Your task to perform on an android device: Open Google Maps and go to "Timeline" Image 0: 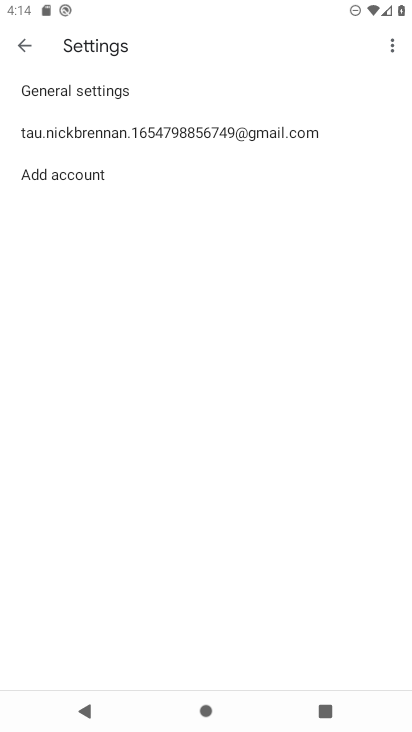
Step 0: press home button
Your task to perform on an android device: Open Google Maps and go to "Timeline" Image 1: 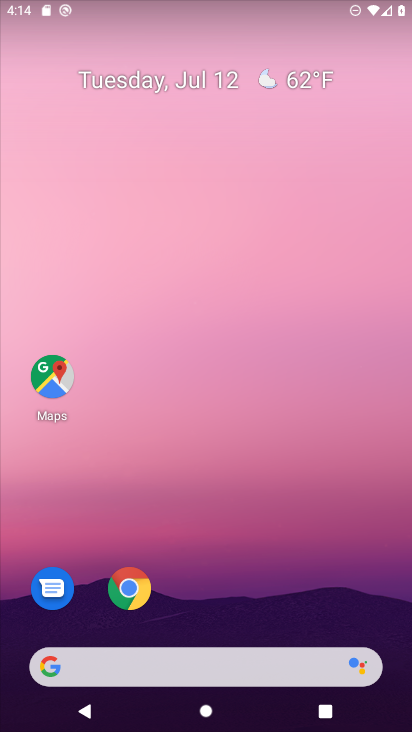
Step 1: drag from (233, 583) to (274, 49)
Your task to perform on an android device: Open Google Maps and go to "Timeline" Image 2: 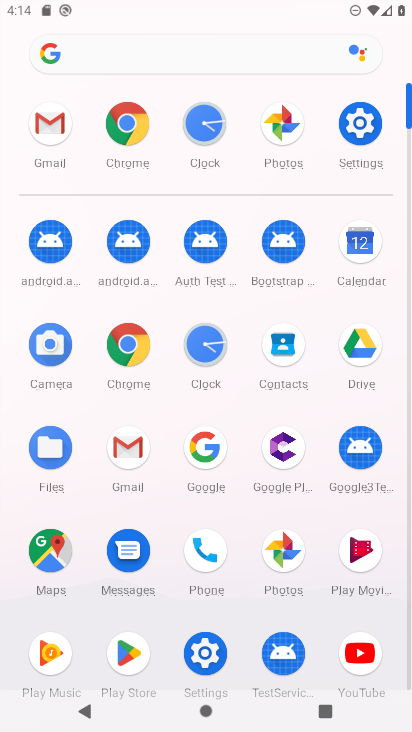
Step 2: click (52, 539)
Your task to perform on an android device: Open Google Maps and go to "Timeline" Image 3: 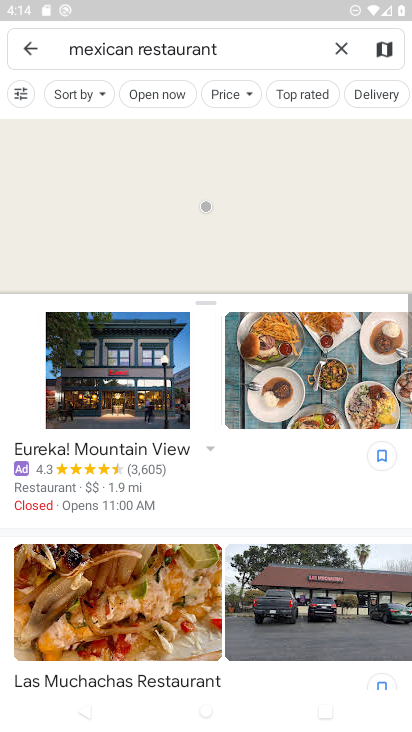
Step 3: click (26, 48)
Your task to perform on an android device: Open Google Maps and go to "Timeline" Image 4: 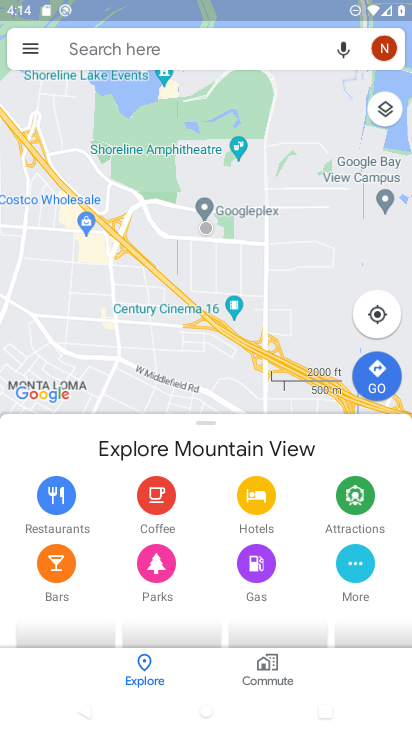
Step 4: click (31, 49)
Your task to perform on an android device: Open Google Maps and go to "Timeline" Image 5: 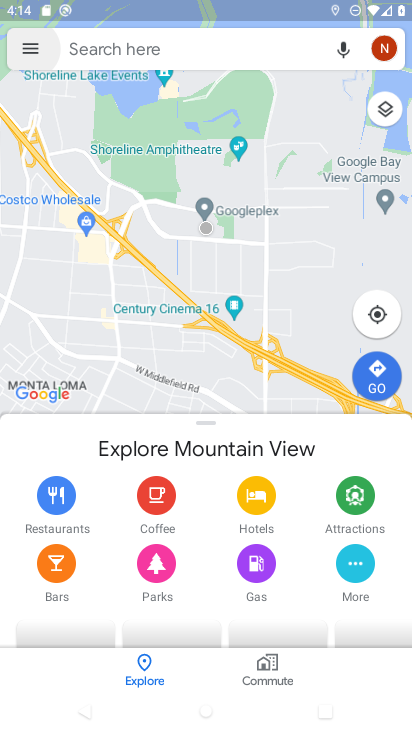
Step 5: click (29, 44)
Your task to perform on an android device: Open Google Maps and go to "Timeline" Image 6: 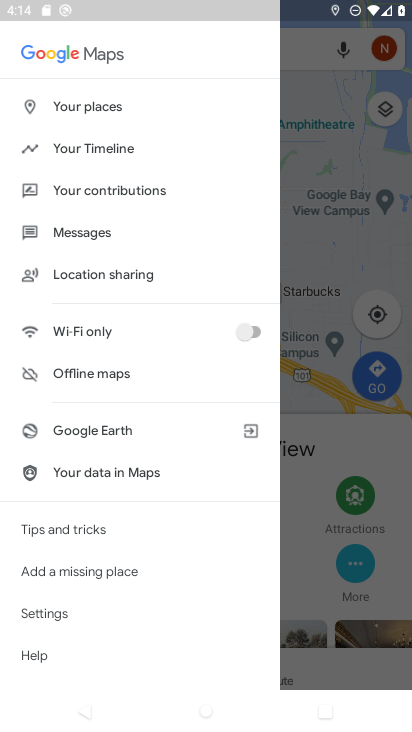
Step 6: click (107, 143)
Your task to perform on an android device: Open Google Maps and go to "Timeline" Image 7: 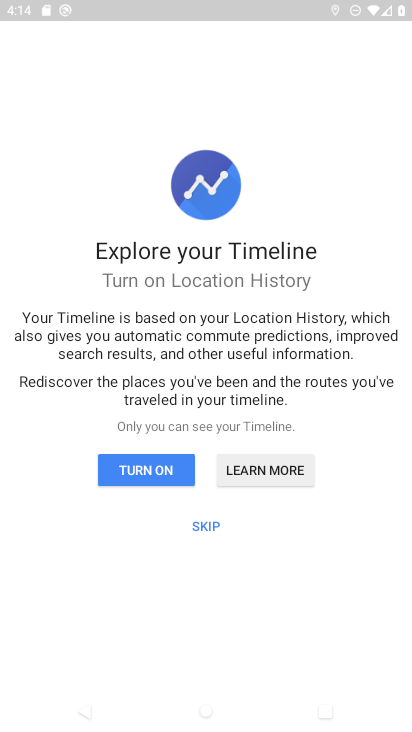
Step 7: click (210, 531)
Your task to perform on an android device: Open Google Maps and go to "Timeline" Image 8: 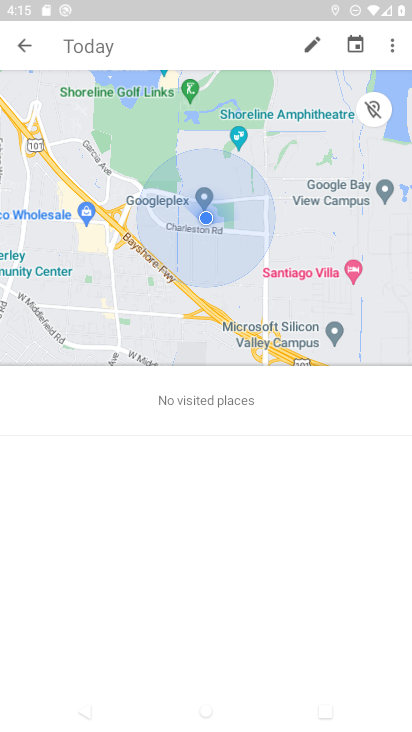
Step 8: task complete